Your task to perform on an android device: Go to Maps Image 0: 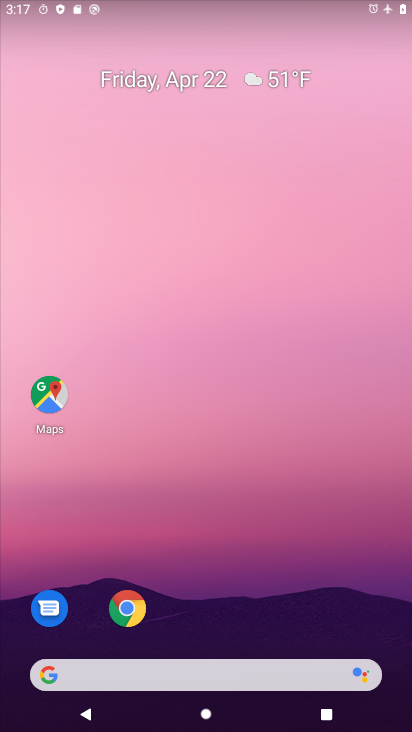
Step 0: click (55, 387)
Your task to perform on an android device: Go to Maps Image 1: 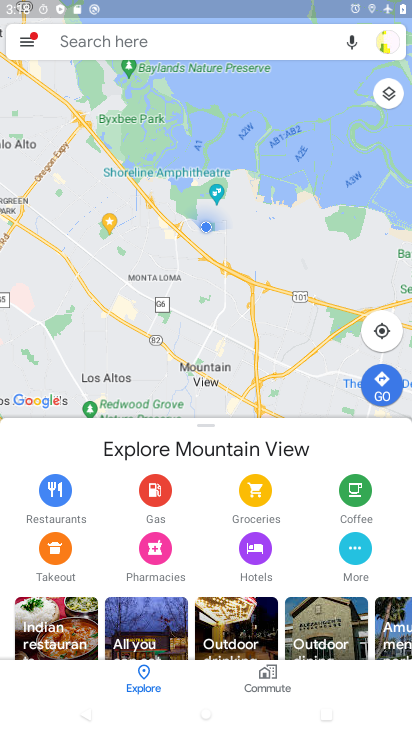
Step 1: task complete